Your task to perform on an android device: See recent photos Image 0: 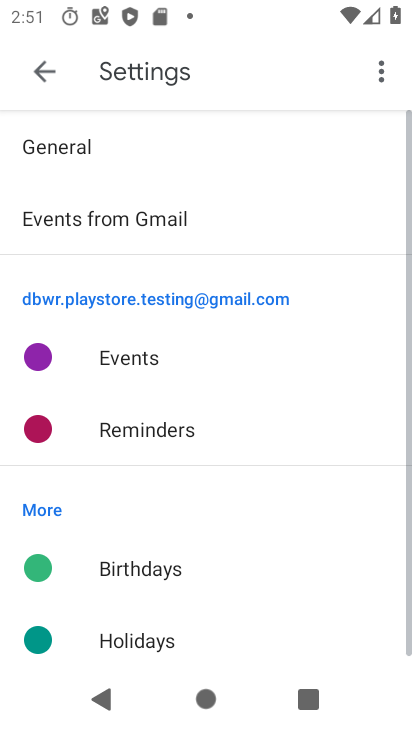
Step 0: click (280, 504)
Your task to perform on an android device: See recent photos Image 1: 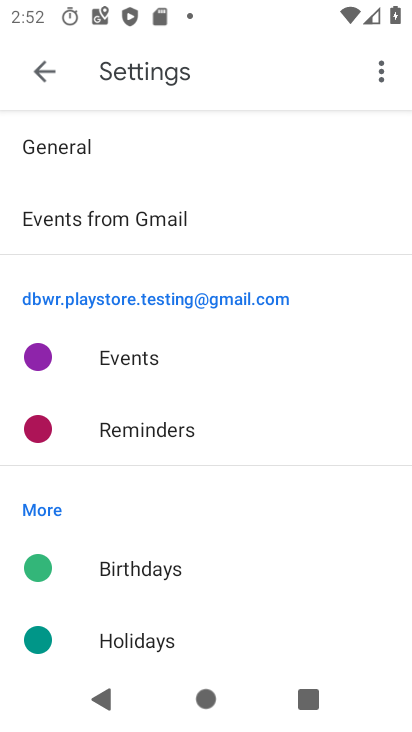
Step 1: press home button
Your task to perform on an android device: See recent photos Image 2: 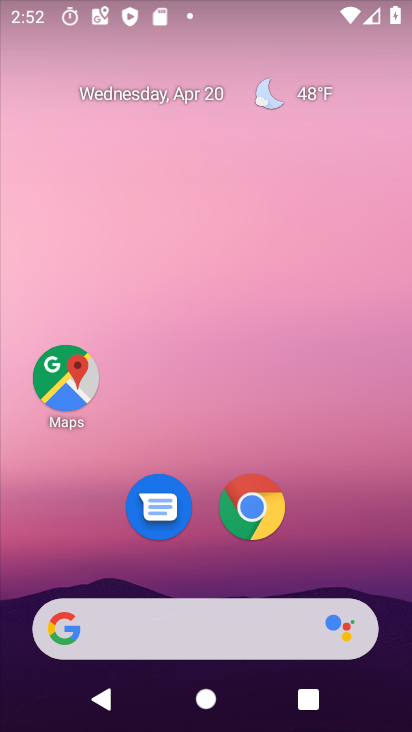
Step 2: drag from (185, 625) to (150, 107)
Your task to perform on an android device: See recent photos Image 3: 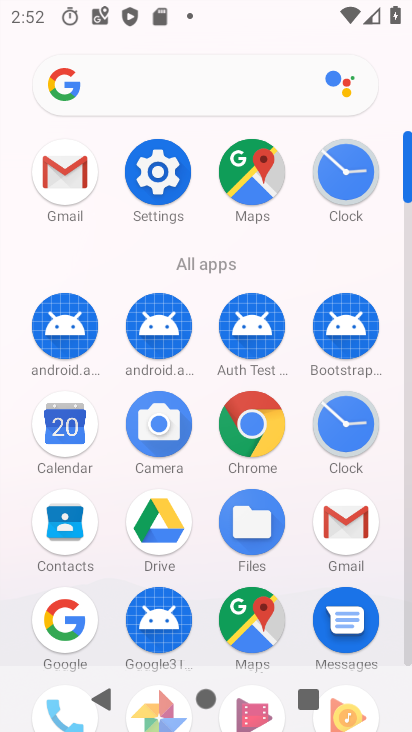
Step 3: drag from (291, 600) to (310, 117)
Your task to perform on an android device: See recent photos Image 4: 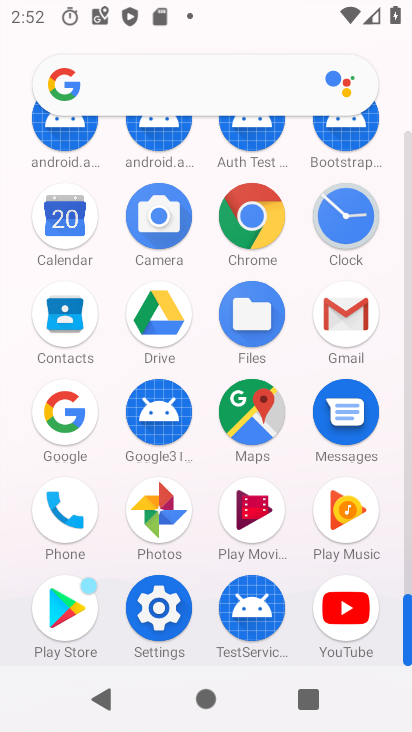
Step 4: click (171, 501)
Your task to perform on an android device: See recent photos Image 5: 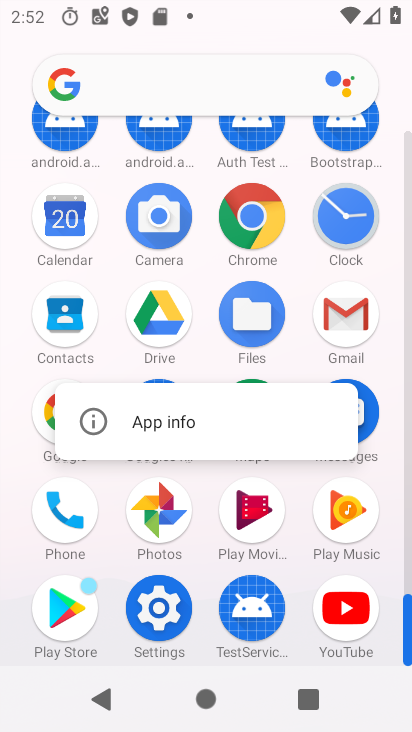
Step 5: click (166, 516)
Your task to perform on an android device: See recent photos Image 6: 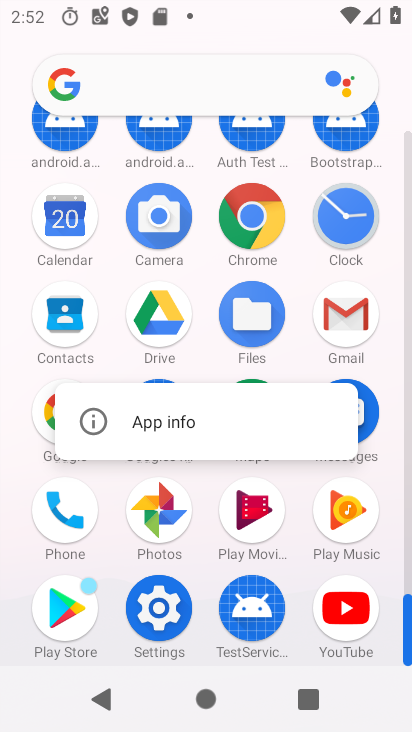
Step 6: click (166, 516)
Your task to perform on an android device: See recent photos Image 7: 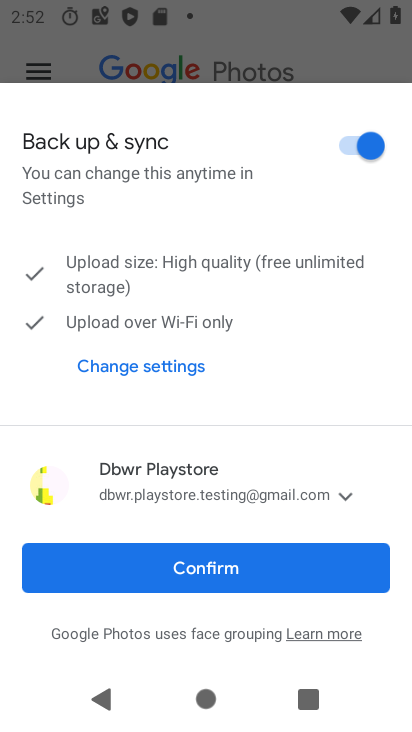
Step 7: click (235, 561)
Your task to perform on an android device: See recent photos Image 8: 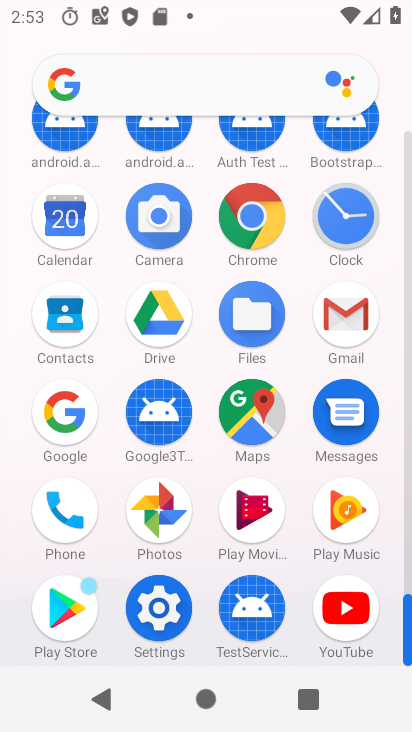
Step 8: click (176, 511)
Your task to perform on an android device: See recent photos Image 9: 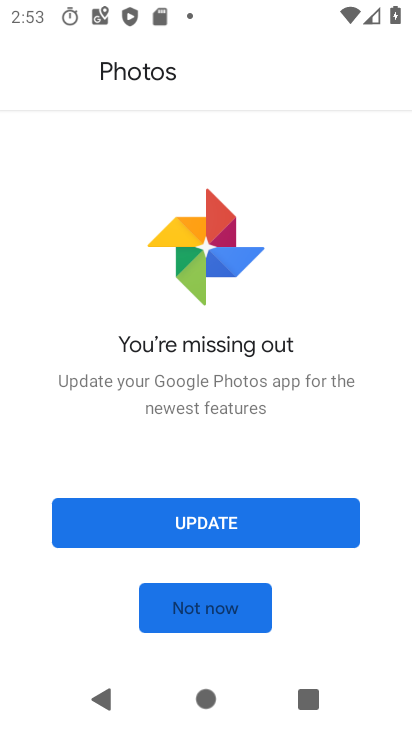
Step 9: click (150, 537)
Your task to perform on an android device: See recent photos Image 10: 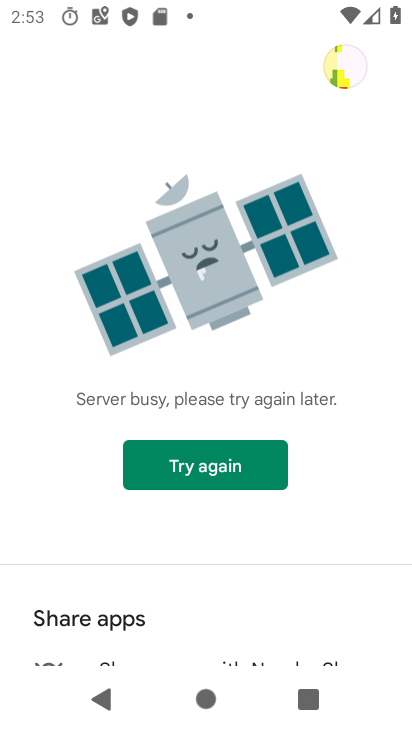
Step 10: task complete